Your task to perform on an android device: turn on the 12-hour format for clock Image 0: 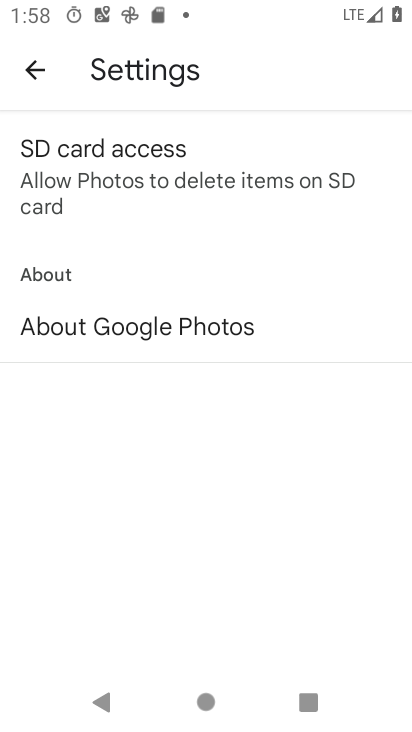
Step 0: press home button
Your task to perform on an android device: turn on the 12-hour format for clock Image 1: 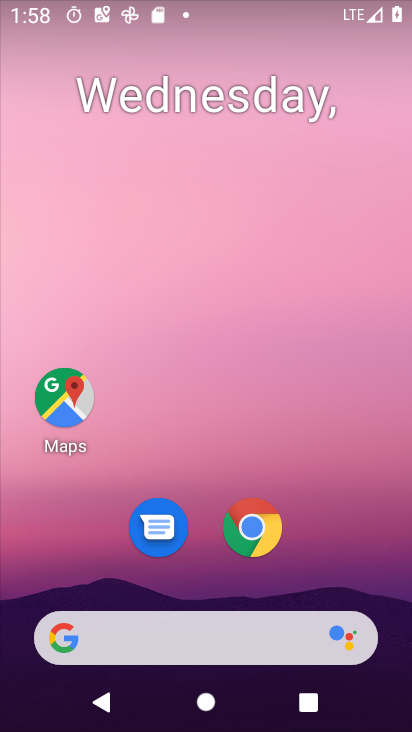
Step 1: drag from (252, 556) to (410, 452)
Your task to perform on an android device: turn on the 12-hour format for clock Image 2: 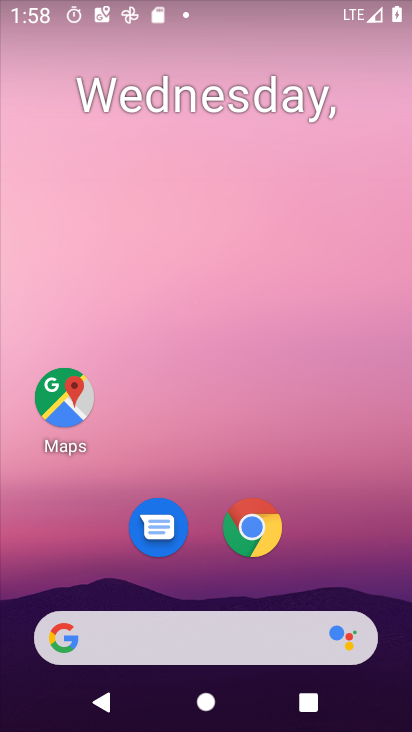
Step 2: click (366, 405)
Your task to perform on an android device: turn on the 12-hour format for clock Image 3: 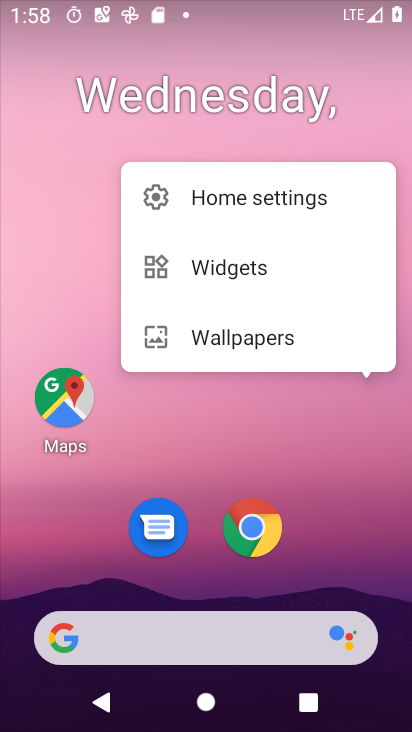
Step 3: drag from (323, 412) to (369, 27)
Your task to perform on an android device: turn on the 12-hour format for clock Image 4: 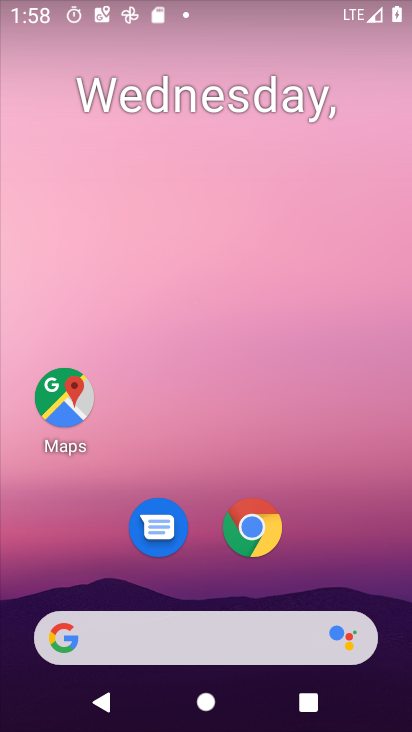
Step 4: drag from (312, 593) to (367, 61)
Your task to perform on an android device: turn on the 12-hour format for clock Image 5: 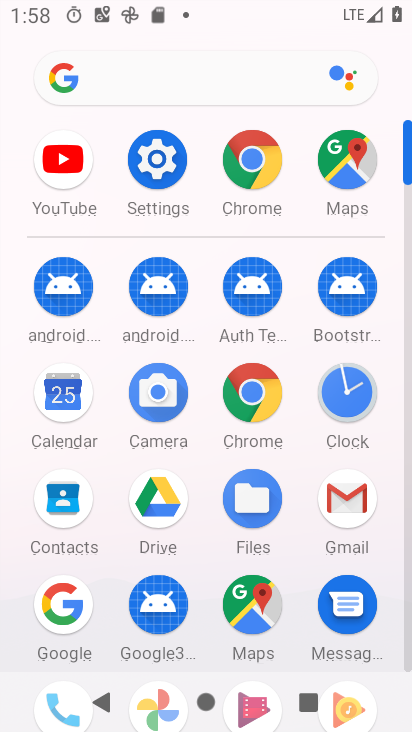
Step 5: click (333, 388)
Your task to perform on an android device: turn on the 12-hour format for clock Image 6: 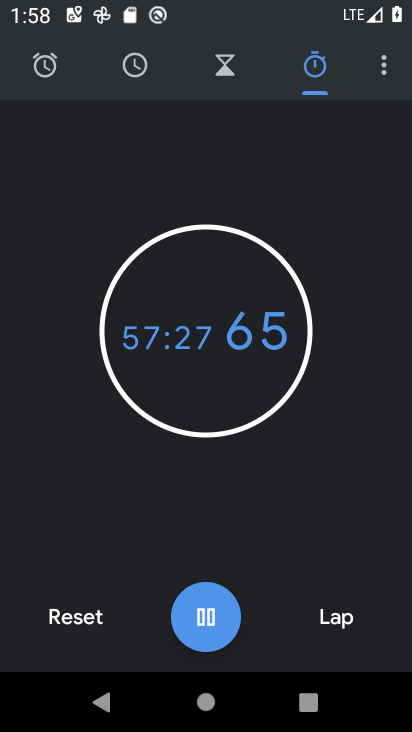
Step 6: click (380, 71)
Your task to perform on an android device: turn on the 12-hour format for clock Image 7: 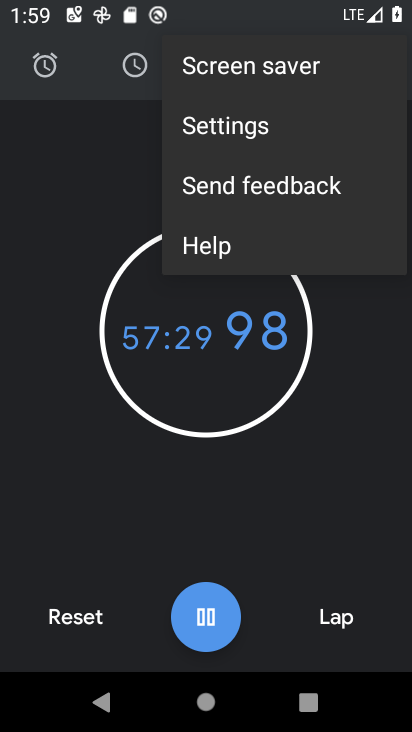
Step 7: click (289, 137)
Your task to perform on an android device: turn on the 12-hour format for clock Image 8: 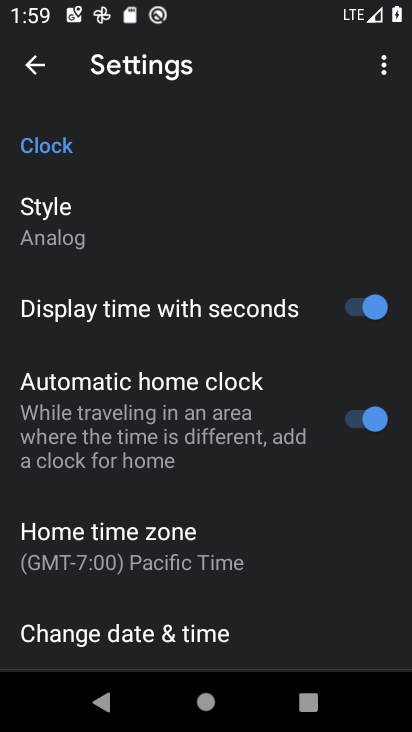
Step 8: drag from (269, 607) to (280, 239)
Your task to perform on an android device: turn on the 12-hour format for clock Image 9: 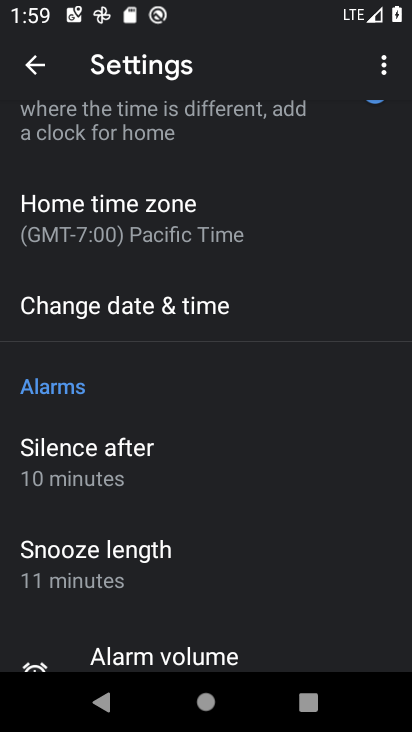
Step 9: click (246, 316)
Your task to perform on an android device: turn on the 12-hour format for clock Image 10: 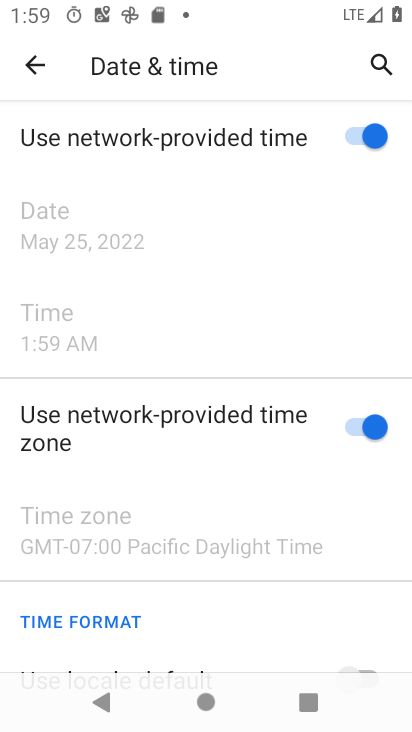
Step 10: task complete